Your task to perform on an android device: clear all cookies in the chrome app Image 0: 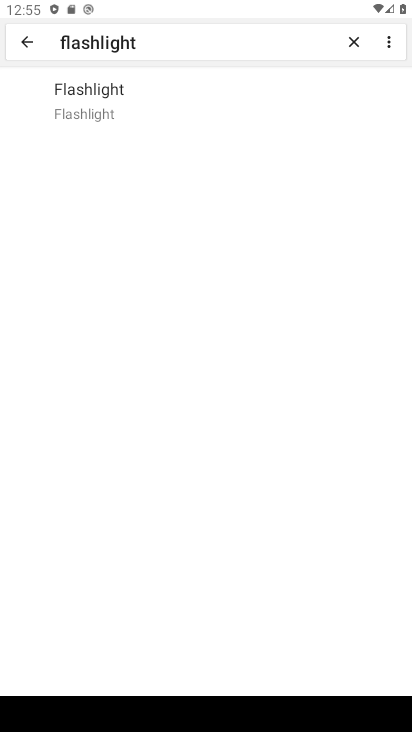
Step 0: press home button
Your task to perform on an android device: clear all cookies in the chrome app Image 1: 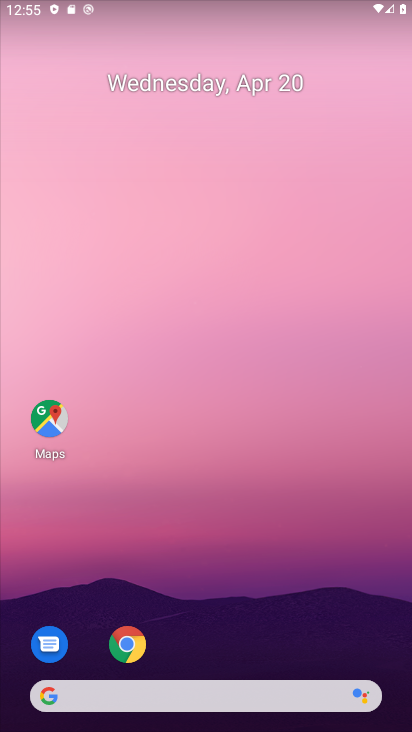
Step 1: click (135, 644)
Your task to perform on an android device: clear all cookies in the chrome app Image 2: 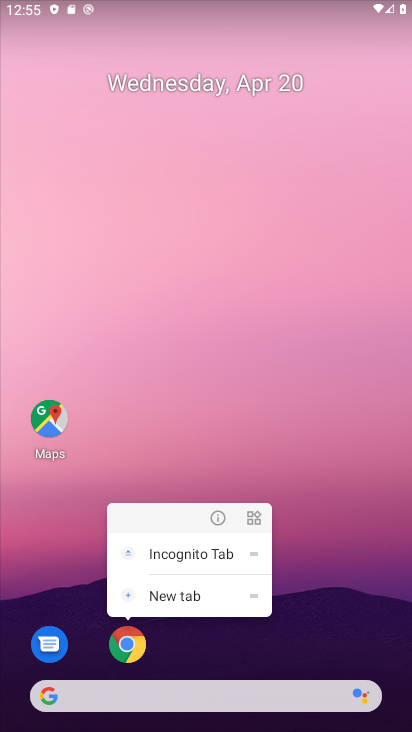
Step 2: click (137, 638)
Your task to perform on an android device: clear all cookies in the chrome app Image 3: 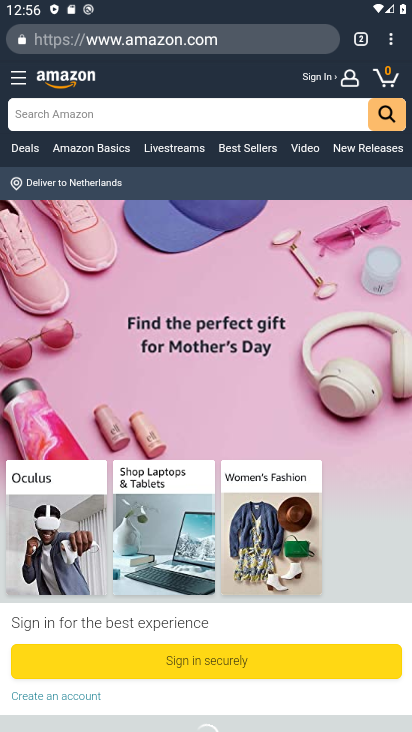
Step 3: click (390, 33)
Your task to perform on an android device: clear all cookies in the chrome app Image 4: 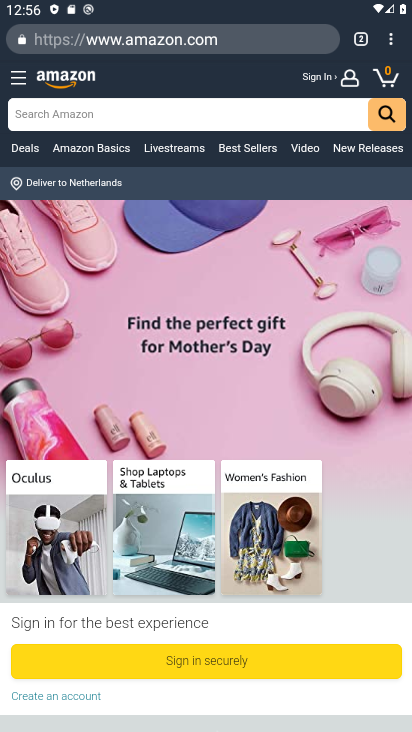
Step 4: click (393, 45)
Your task to perform on an android device: clear all cookies in the chrome app Image 5: 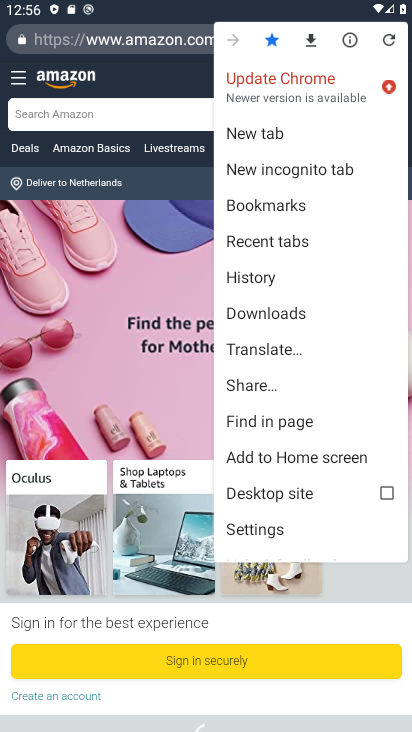
Step 5: click (277, 528)
Your task to perform on an android device: clear all cookies in the chrome app Image 6: 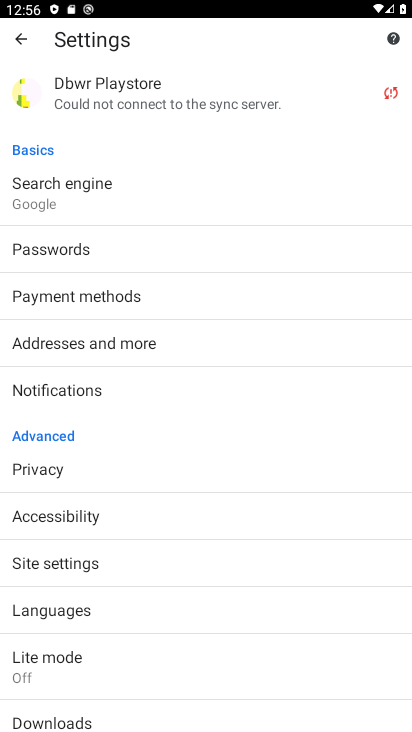
Step 6: click (143, 470)
Your task to perform on an android device: clear all cookies in the chrome app Image 7: 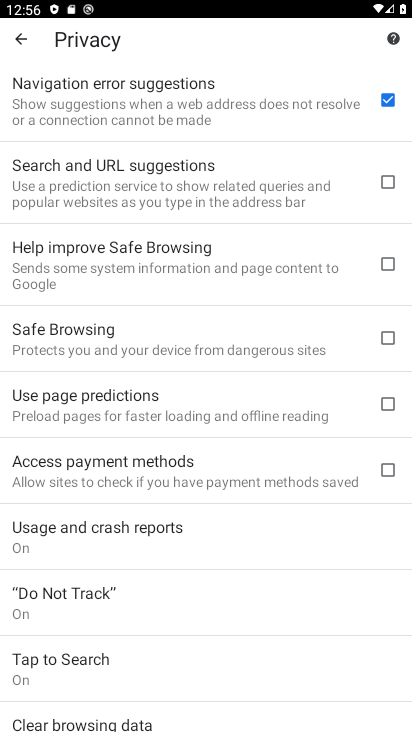
Step 7: click (201, 716)
Your task to perform on an android device: clear all cookies in the chrome app Image 8: 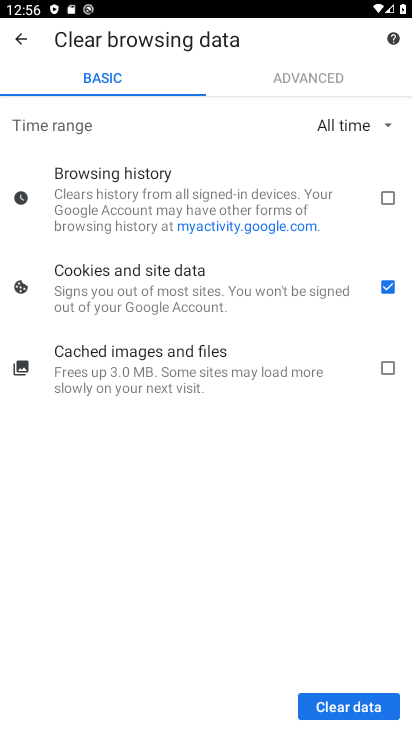
Step 8: click (325, 706)
Your task to perform on an android device: clear all cookies in the chrome app Image 9: 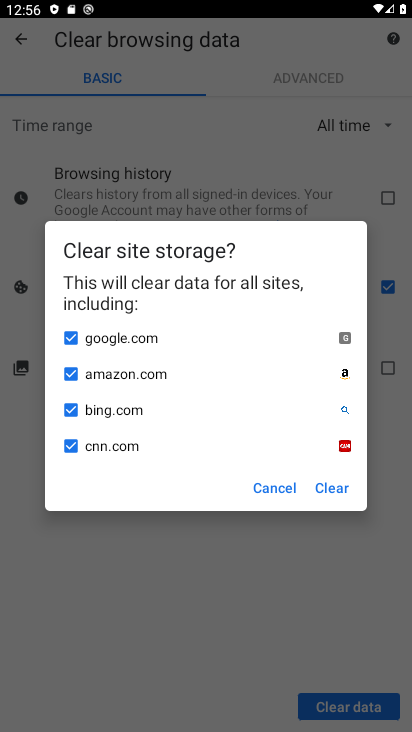
Step 9: click (338, 483)
Your task to perform on an android device: clear all cookies in the chrome app Image 10: 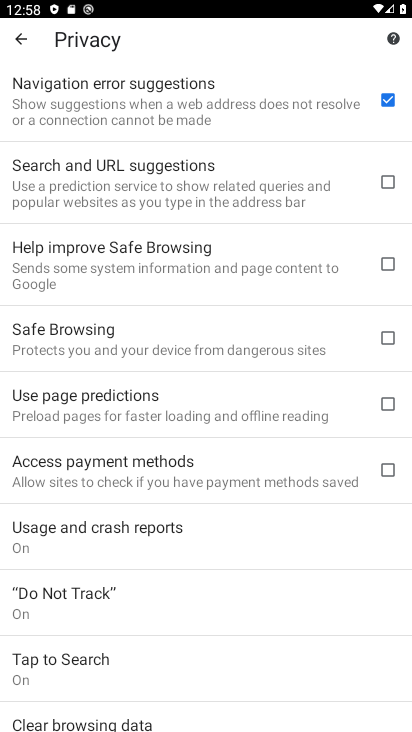
Step 10: task complete